Your task to perform on an android device: turn on showing notifications on the lock screen Image 0: 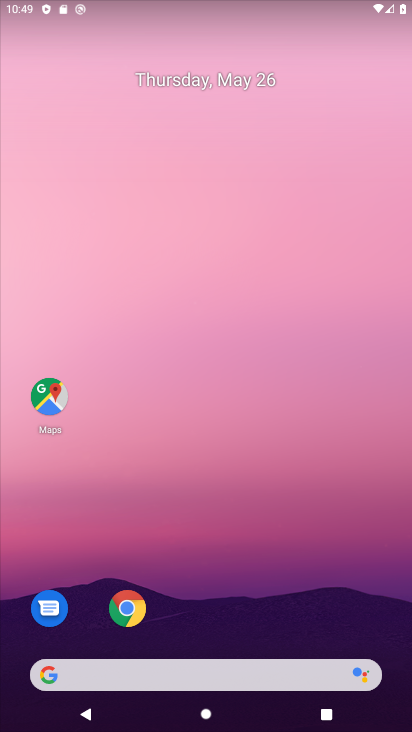
Step 0: drag from (243, 566) to (207, 127)
Your task to perform on an android device: turn on showing notifications on the lock screen Image 1: 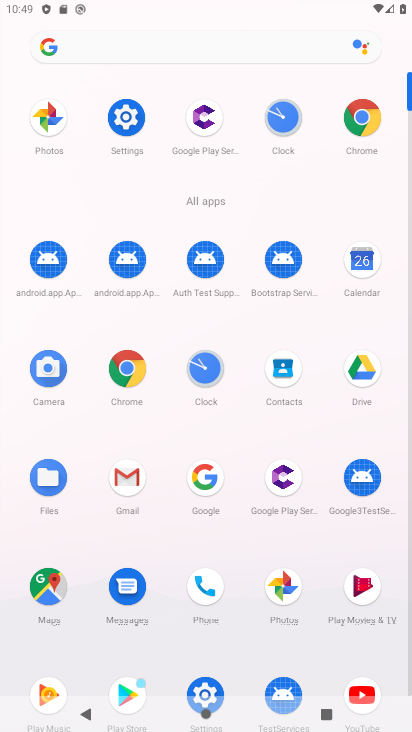
Step 1: click (125, 119)
Your task to perform on an android device: turn on showing notifications on the lock screen Image 2: 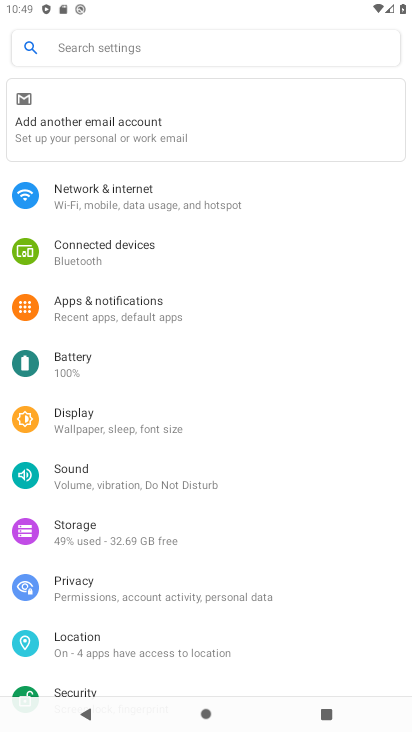
Step 2: click (164, 309)
Your task to perform on an android device: turn on showing notifications on the lock screen Image 3: 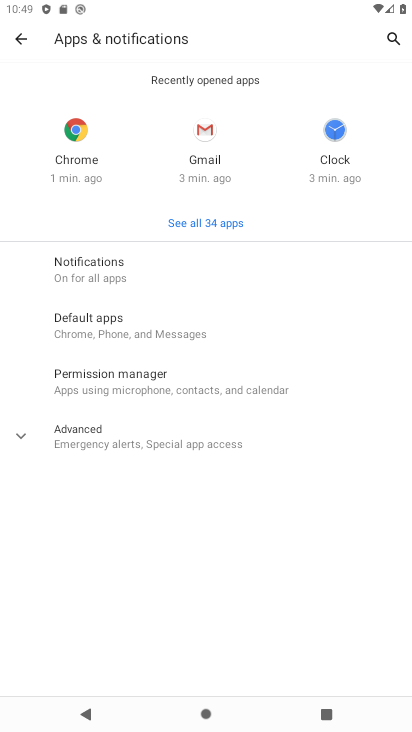
Step 3: click (168, 269)
Your task to perform on an android device: turn on showing notifications on the lock screen Image 4: 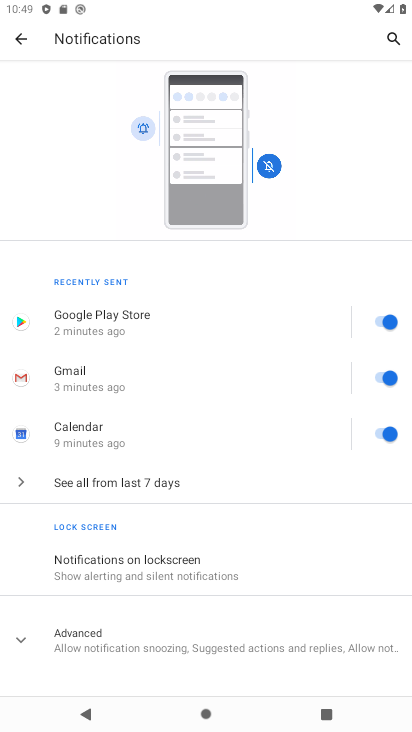
Step 4: click (238, 565)
Your task to perform on an android device: turn on showing notifications on the lock screen Image 5: 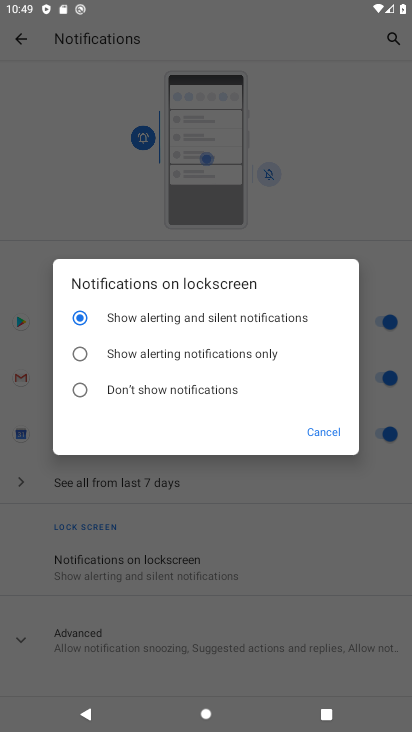
Step 5: task complete